Your task to perform on an android device: toggle javascript in the chrome app Image 0: 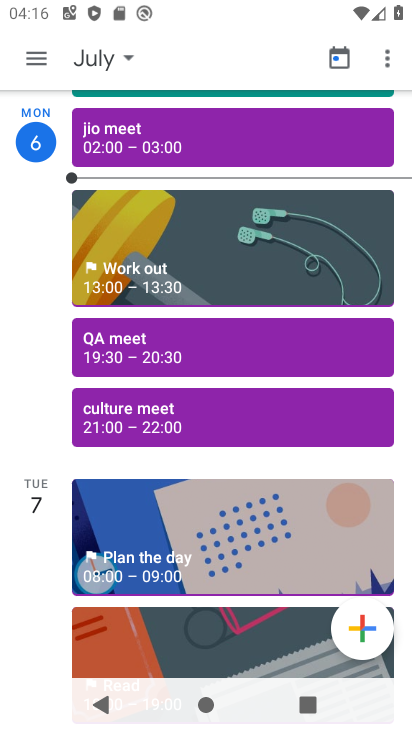
Step 0: press home button
Your task to perform on an android device: toggle javascript in the chrome app Image 1: 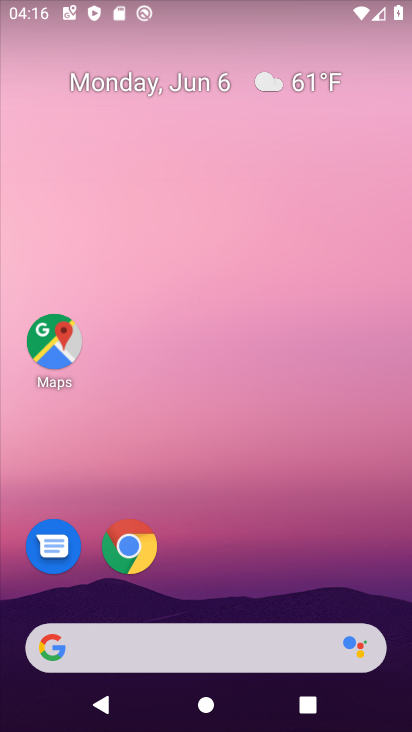
Step 1: click (130, 552)
Your task to perform on an android device: toggle javascript in the chrome app Image 2: 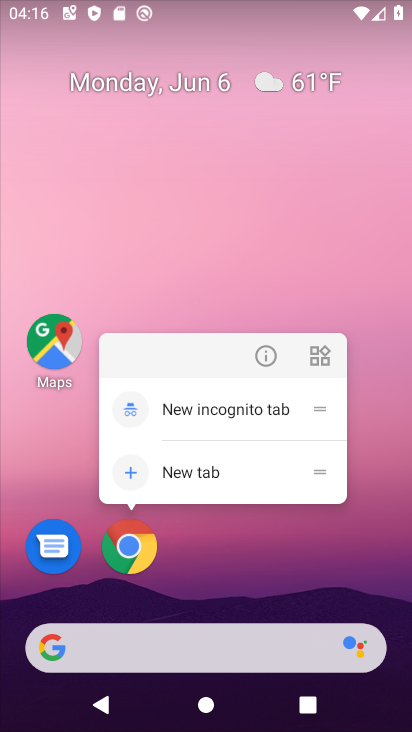
Step 2: click (130, 552)
Your task to perform on an android device: toggle javascript in the chrome app Image 3: 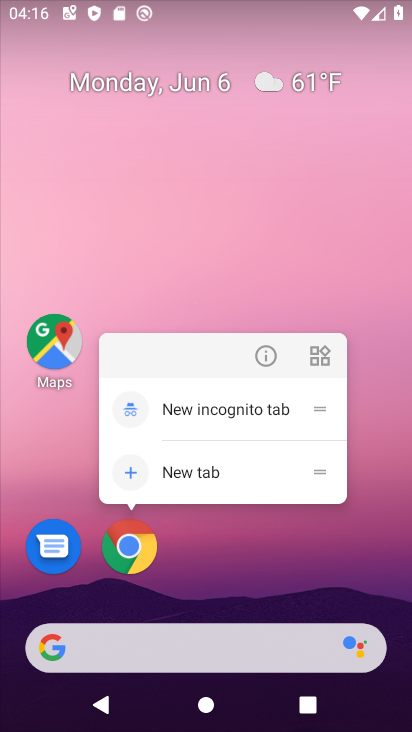
Step 3: click (98, 570)
Your task to perform on an android device: toggle javascript in the chrome app Image 4: 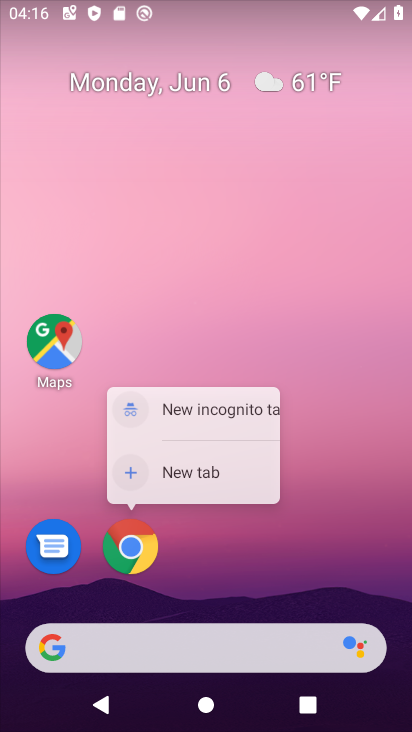
Step 4: click (138, 552)
Your task to perform on an android device: toggle javascript in the chrome app Image 5: 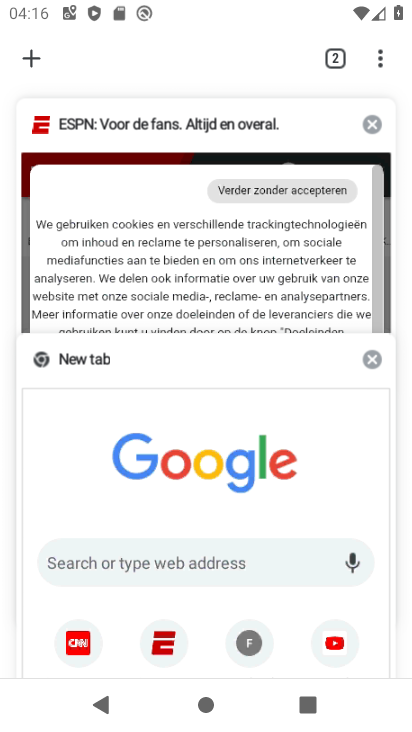
Step 5: drag from (383, 64) to (202, 226)
Your task to perform on an android device: toggle javascript in the chrome app Image 6: 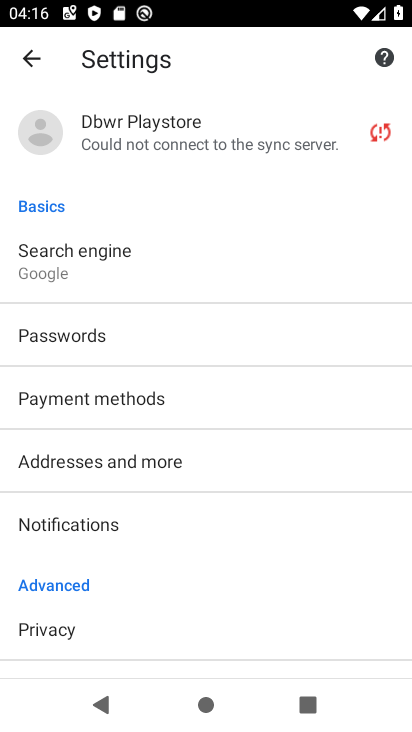
Step 6: drag from (251, 576) to (195, 59)
Your task to perform on an android device: toggle javascript in the chrome app Image 7: 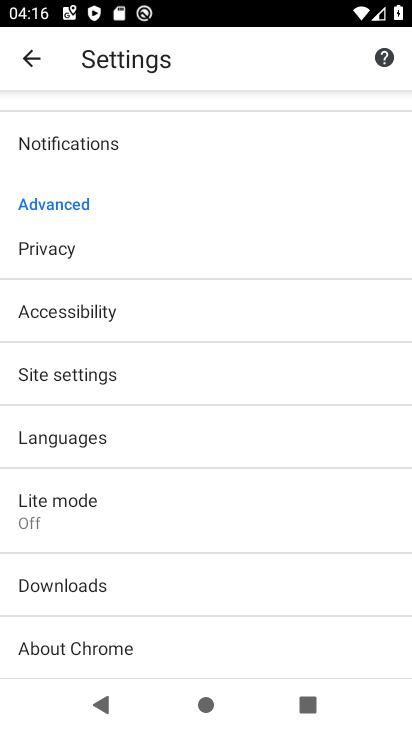
Step 7: click (59, 372)
Your task to perform on an android device: toggle javascript in the chrome app Image 8: 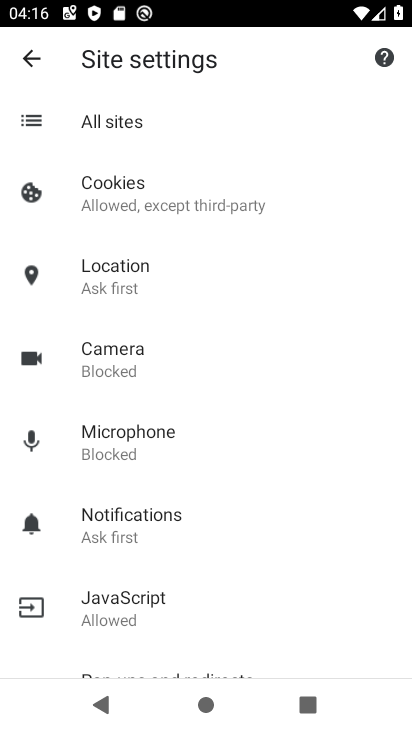
Step 8: click (139, 614)
Your task to perform on an android device: toggle javascript in the chrome app Image 9: 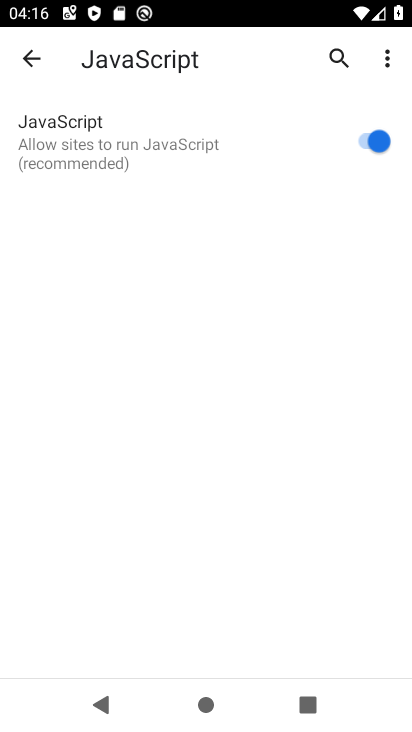
Step 9: click (382, 144)
Your task to perform on an android device: toggle javascript in the chrome app Image 10: 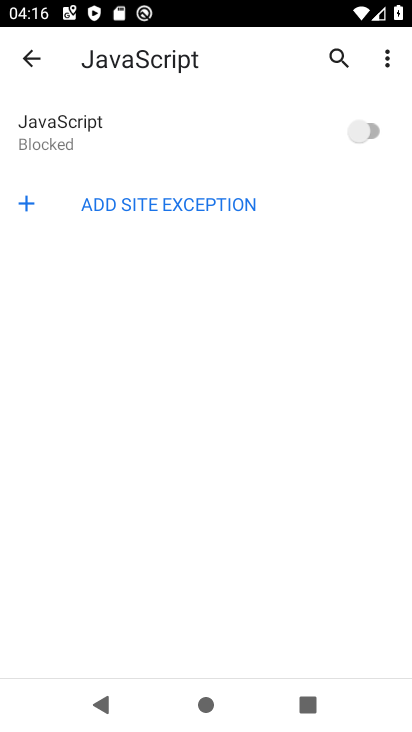
Step 10: task complete